Your task to perform on an android device: Set an alarmfor 5pm Image 0: 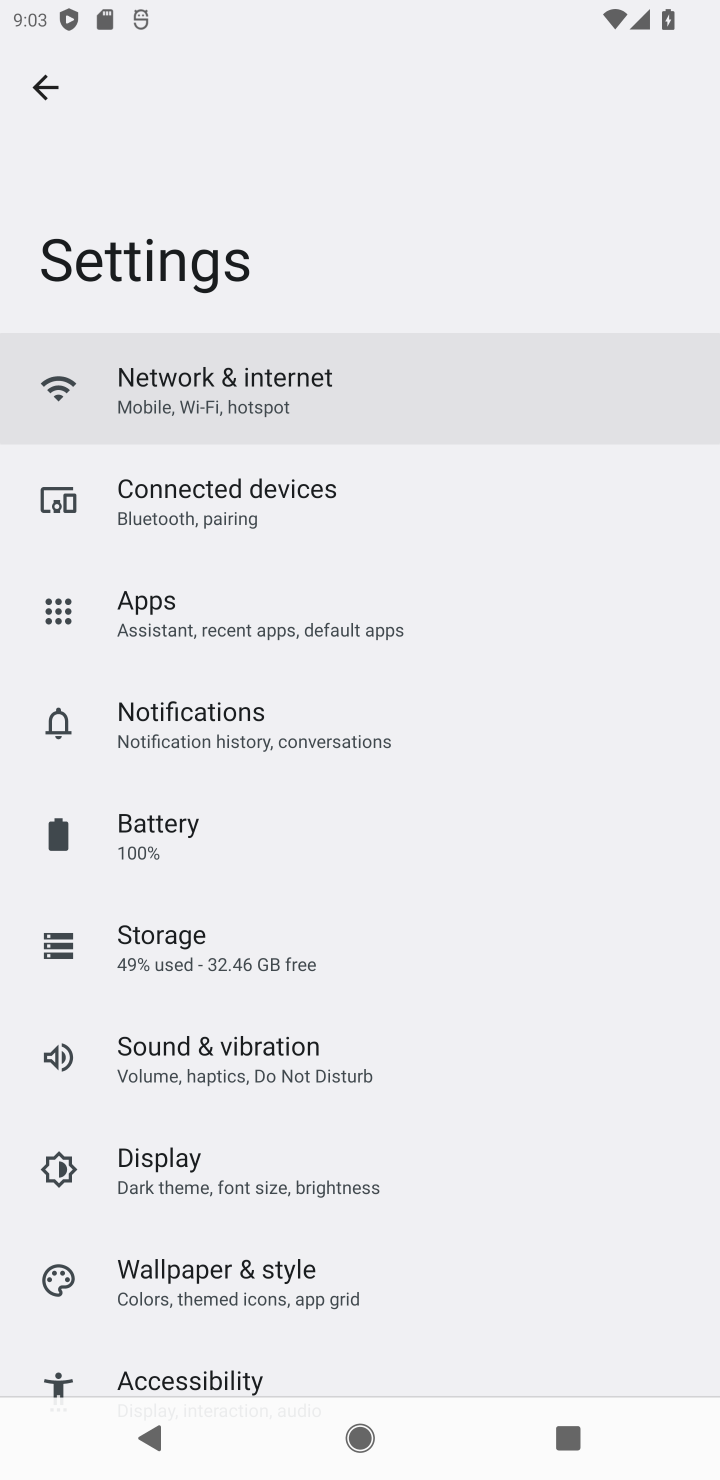
Step 0: press home button
Your task to perform on an android device: Set an alarmfor 5pm Image 1: 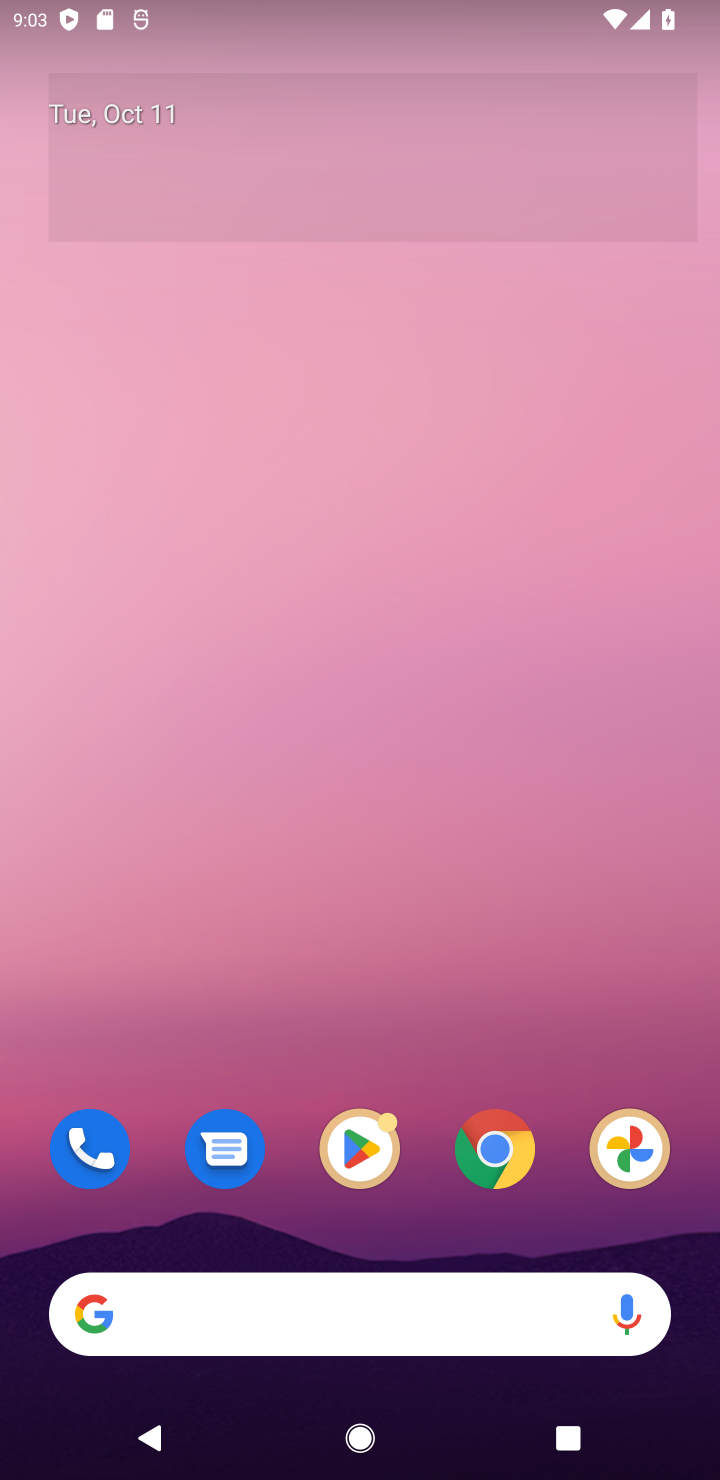
Step 1: drag from (392, 899) to (354, 28)
Your task to perform on an android device: Set an alarmfor 5pm Image 2: 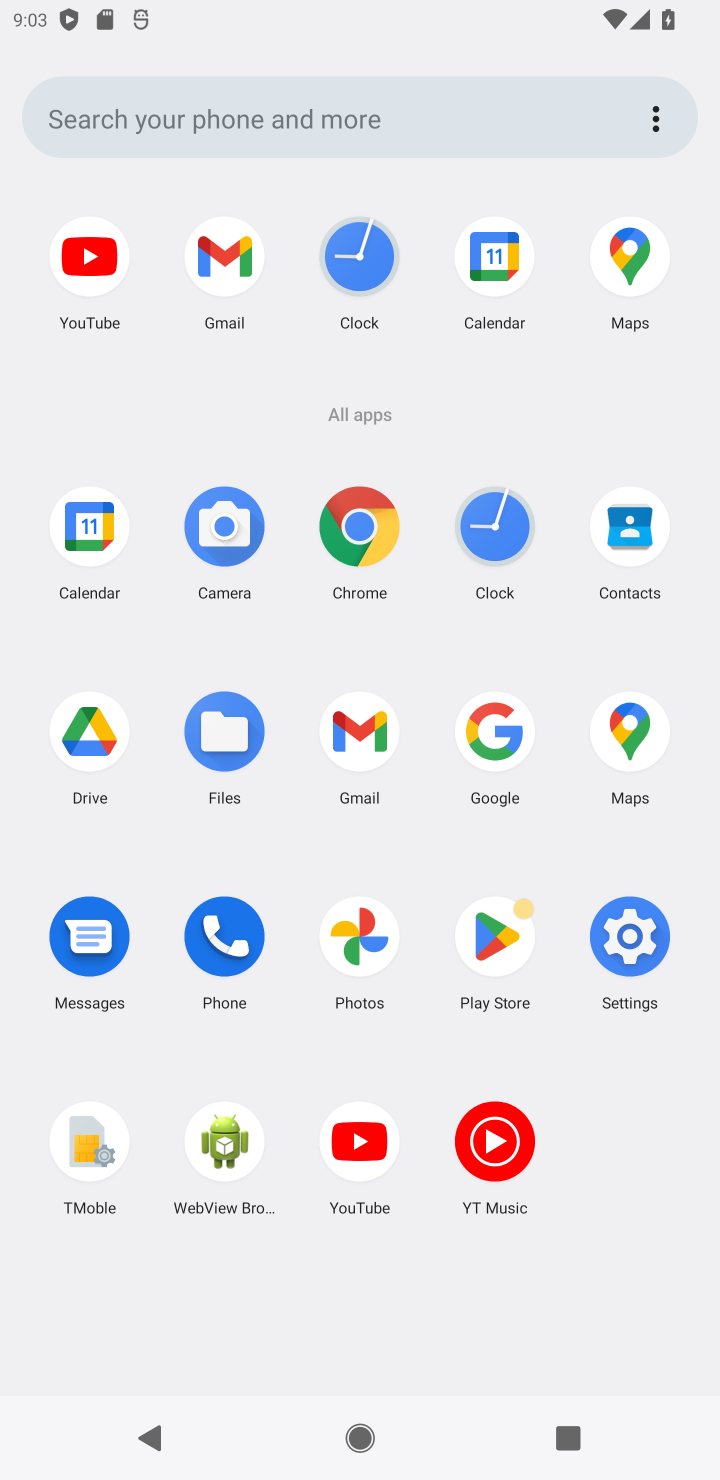
Step 2: click (483, 516)
Your task to perform on an android device: Set an alarmfor 5pm Image 3: 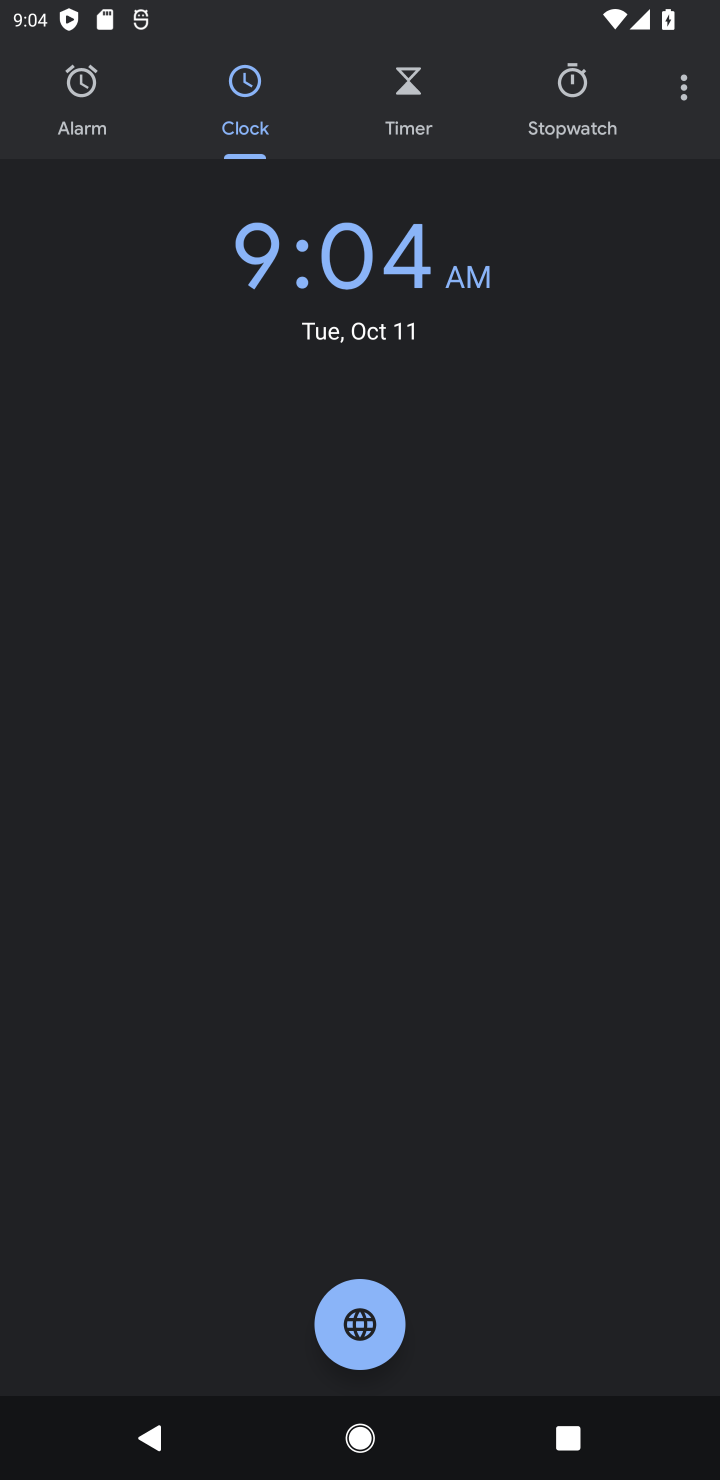
Step 3: click (86, 106)
Your task to perform on an android device: Set an alarmfor 5pm Image 4: 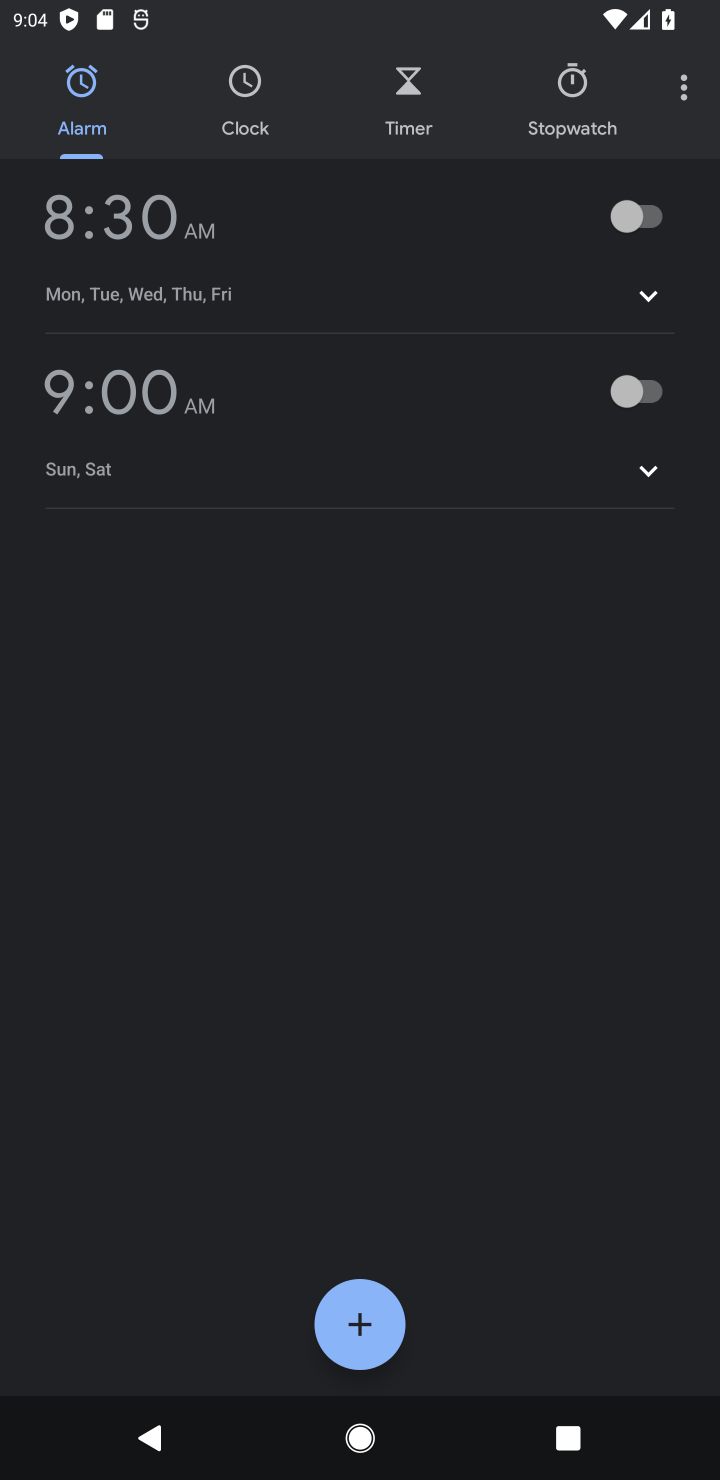
Step 4: click (371, 1314)
Your task to perform on an android device: Set an alarmfor 5pm Image 5: 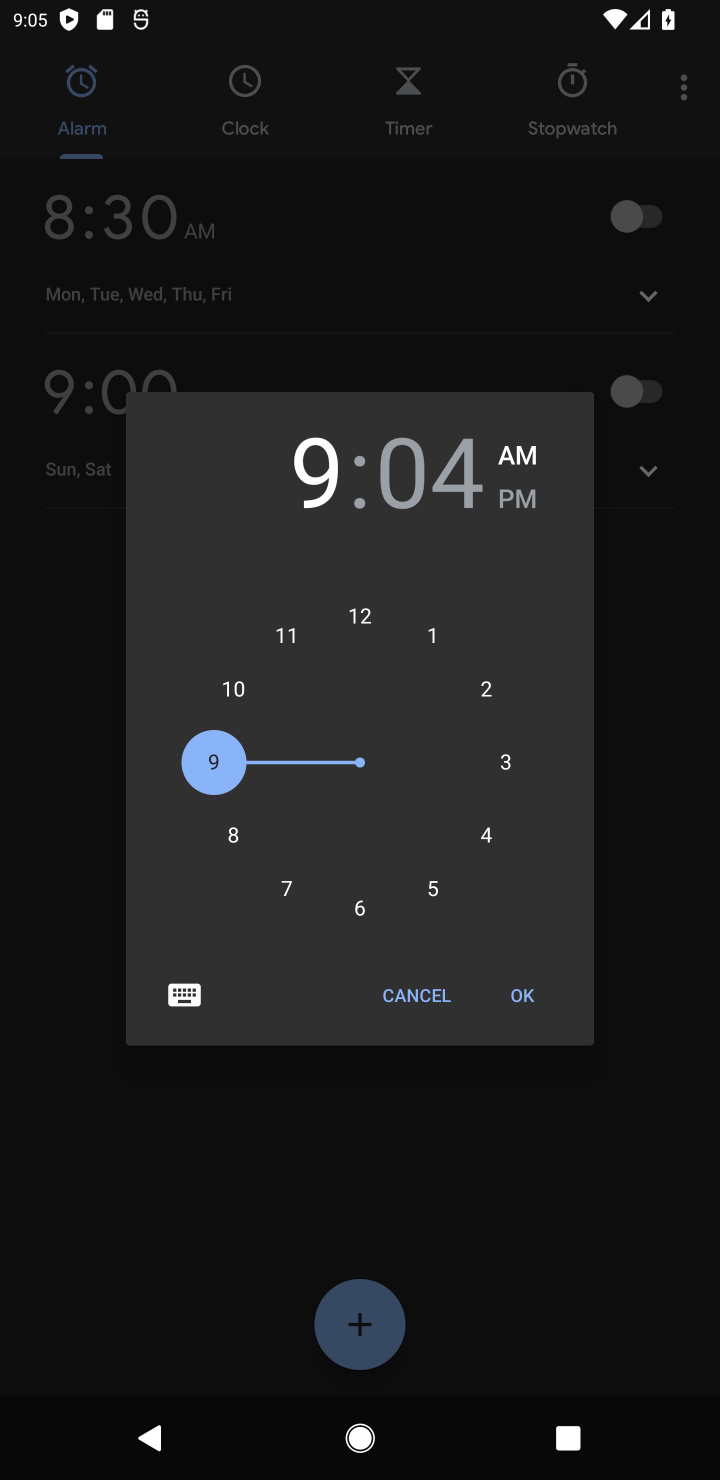
Step 5: click (435, 883)
Your task to perform on an android device: Set an alarmfor 5pm Image 6: 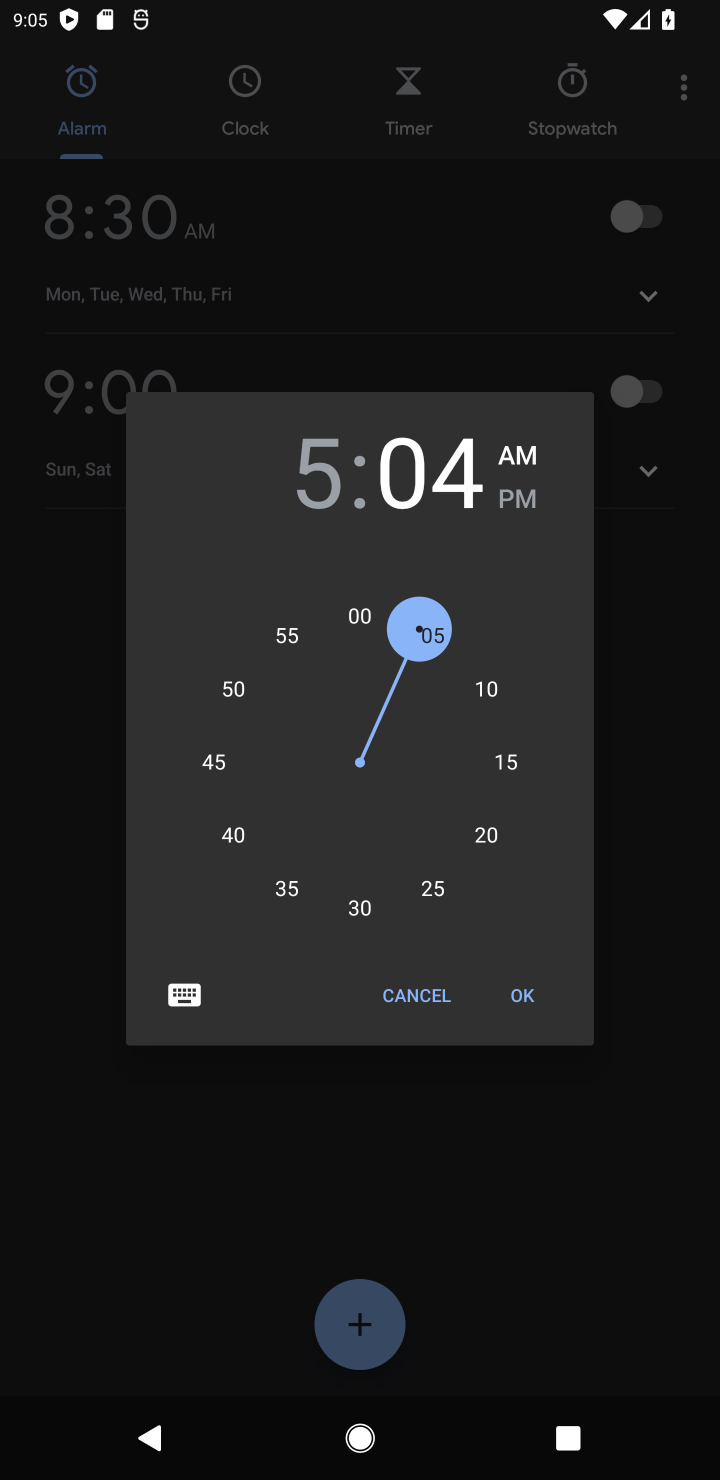
Step 6: click (519, 494)
Your task to perform on an android device: Set an alarmfor 5pm Image 7: 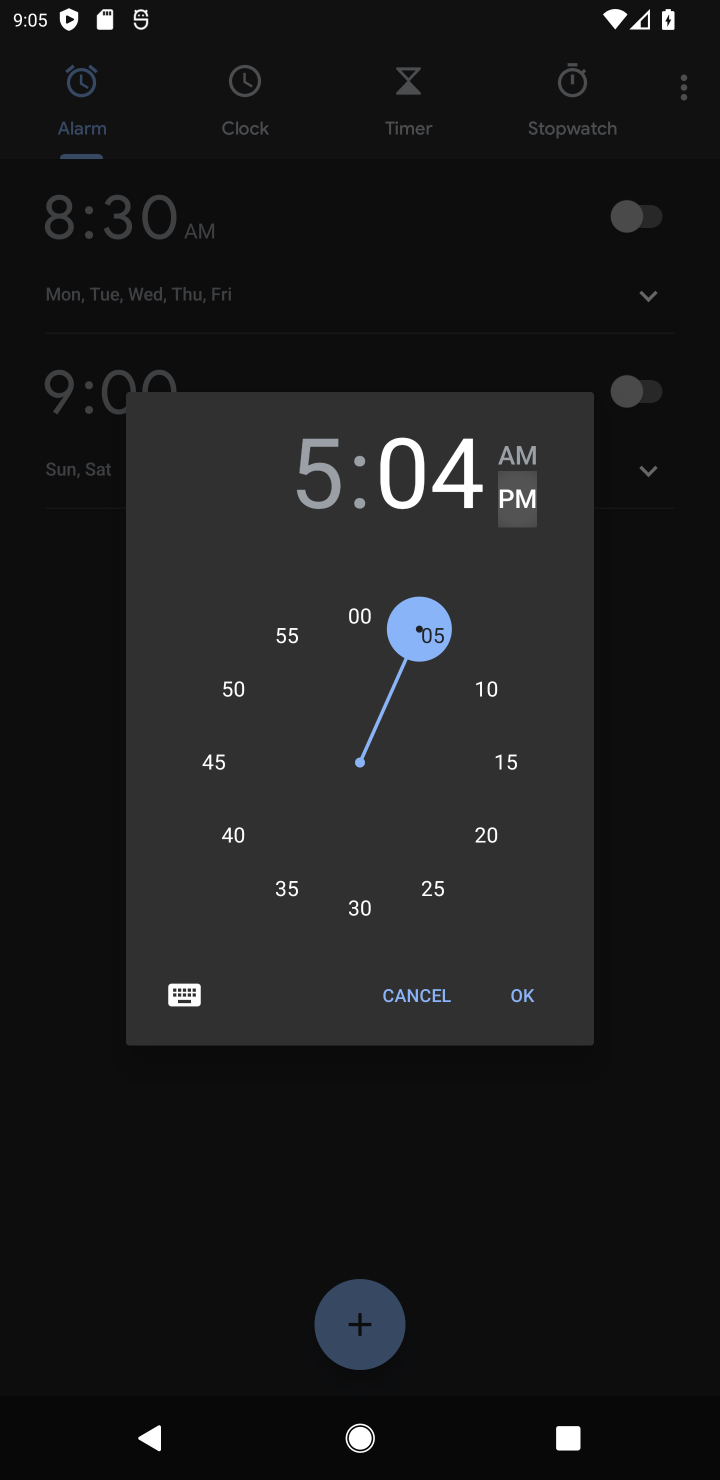
Step 7: click (365, 622)
Your task to perform on an android device: Set an alarmfor 5pm Image 8: 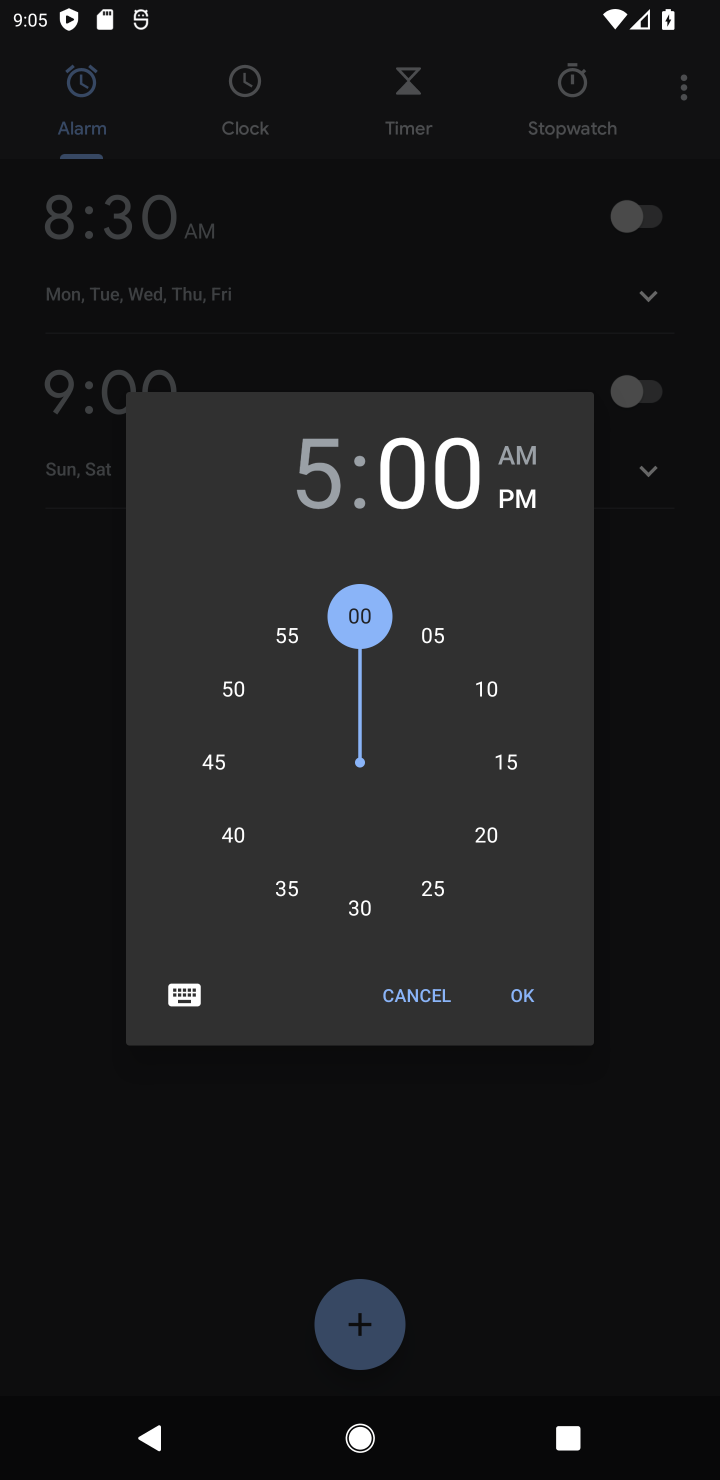
Step 8: click (524, 1018)
Your task to perform on an android device: Set an alarmfor 5pm Image 9: 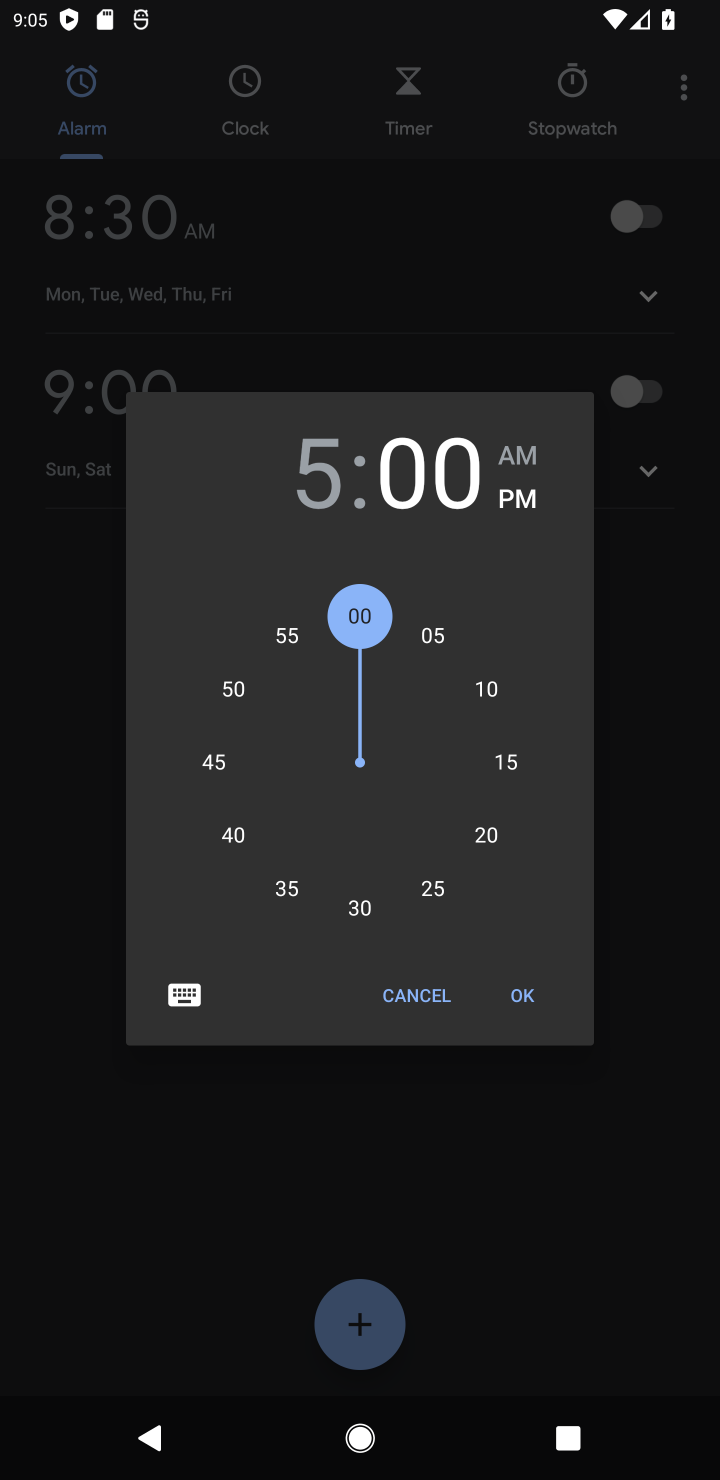
Step 9: click (524, 996)
Your task to perform on an android device: Set an alarmfor 5pm Image 10: 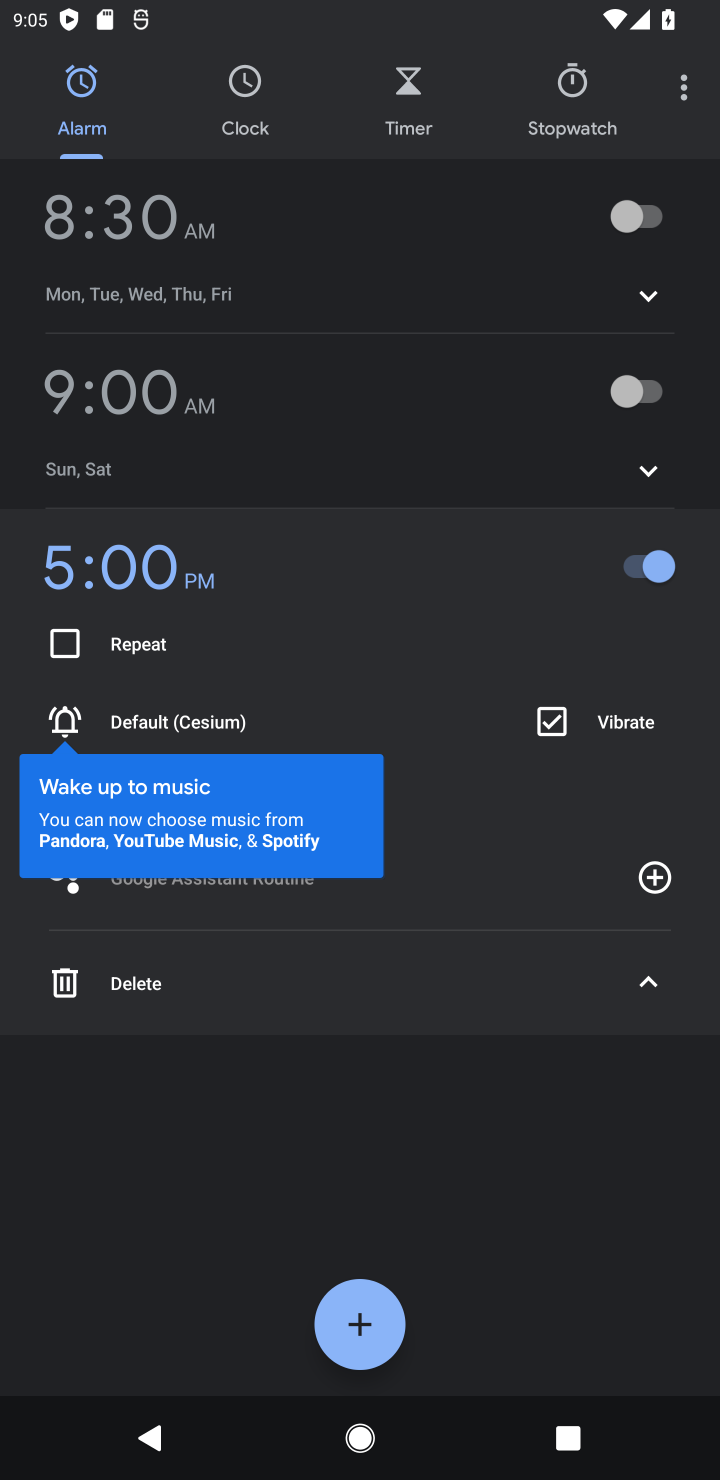
Step 10: task complete